Your task to perform on an android device: turn on airplane mode Image 0: 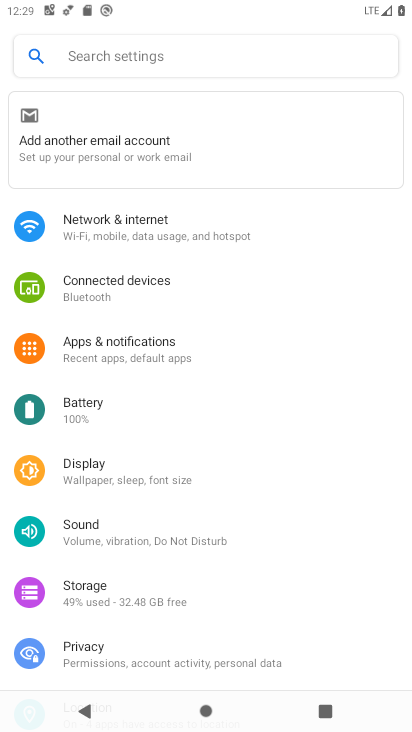
Step 0: click (222, 226)
Your task to perform on an android device: turn on airplane mode Image 1: 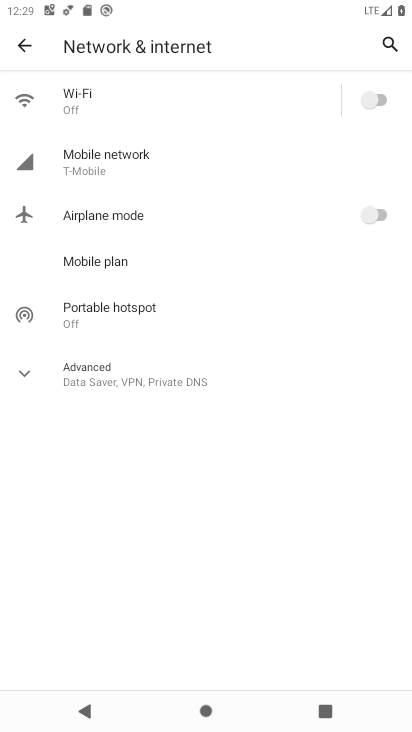
Step 1: click (382, 213)
Your task to perform on an android device: turn on airplane mode Image 2: 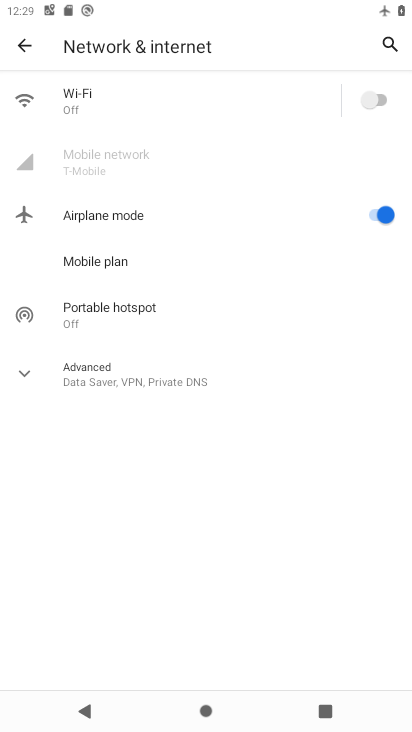
Step 2: task complete